Your task to perform on an android device: change the clock display to show seconds Image 0: 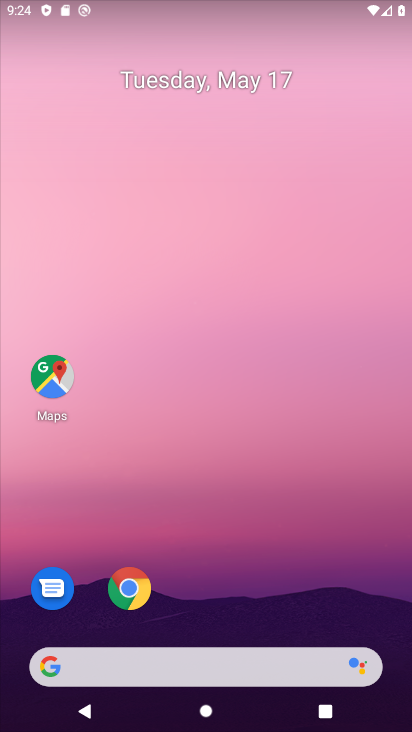
Step 0: drag from (291, 460) to (63, 23)
Your task to perform on an android device: change the clock display to show seconds Image 1: 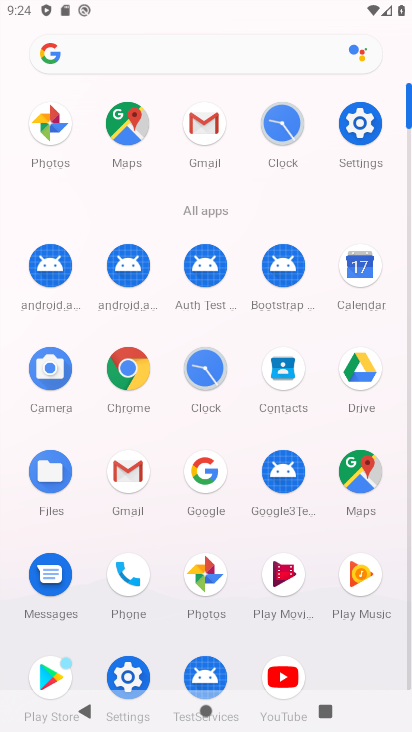
Step 1: click (211, 382)
Your task to perform on an android device: change the clock display to show seconds Image 2: 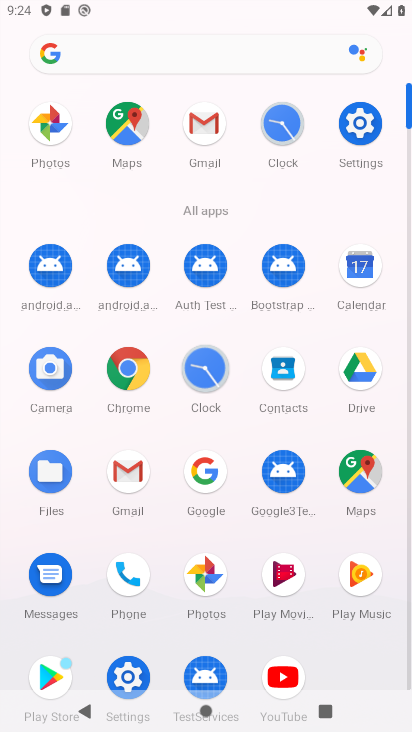
Step 2: click (211, 382)
Your task to perform on an android device: change the clock display to show seconds Image 3: 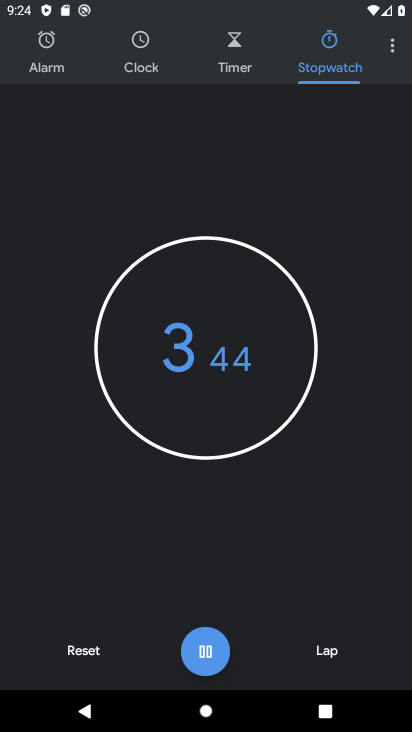
Step 3: click (394, 50)
Your task to perform on an android device: change the clock display to show seconds Image 4: 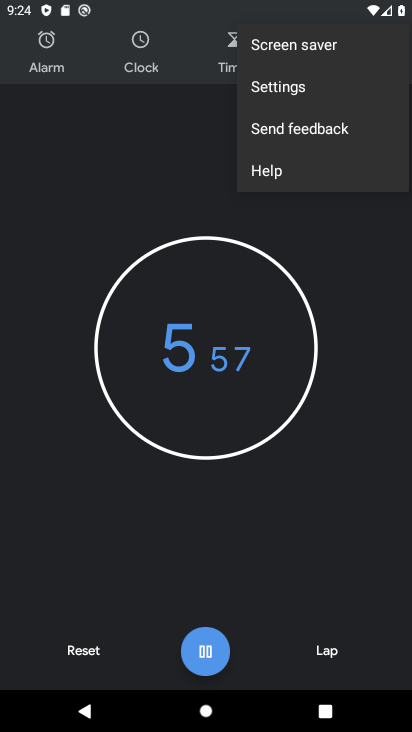
Step 4: click (304, 86)
Your task to perform on an android device: change the clock display to show seconds Image 5: 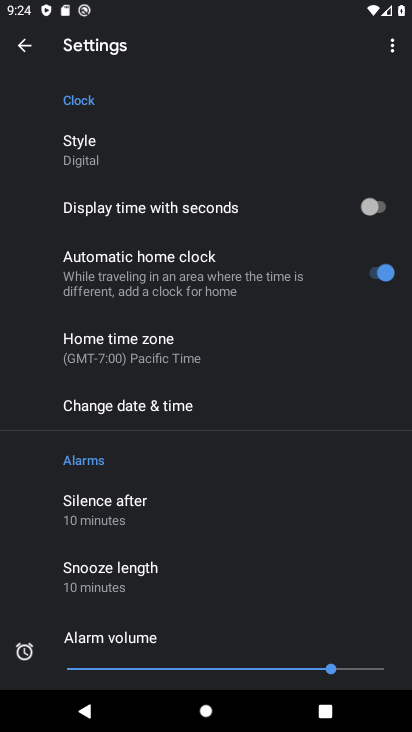
Step 5: click (366, 203)
Your task to perform on an android device: change the clock display to show seconds Image 6: 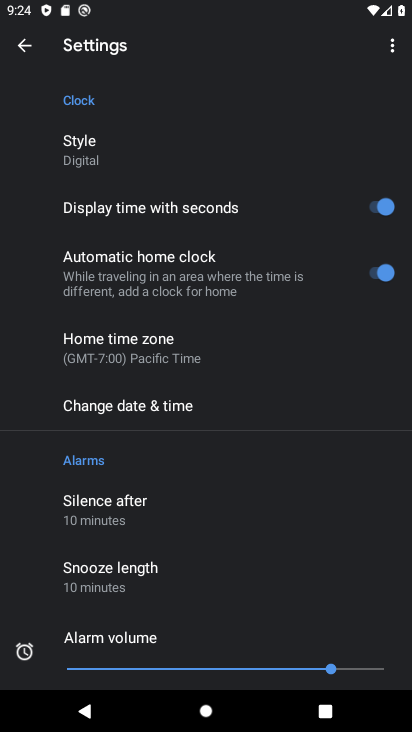
Step 6: task complete